Your task to perform on an android device: Open ESPN.com Image 0: 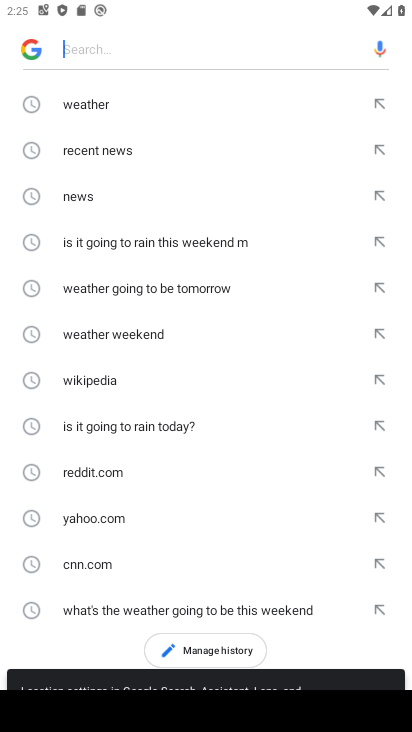
Step 0: press home button
Your task to perform on an android device: Open ESPN.com Image 1: 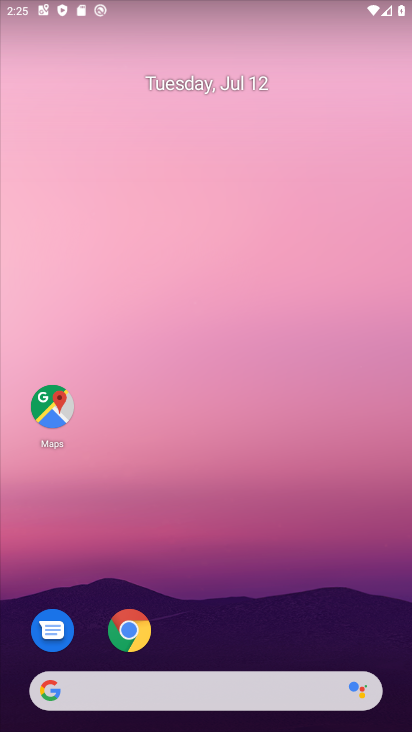
Step 1: click (128, 629)
Your task to perform on an android device: Open ESPN.com Image 2: 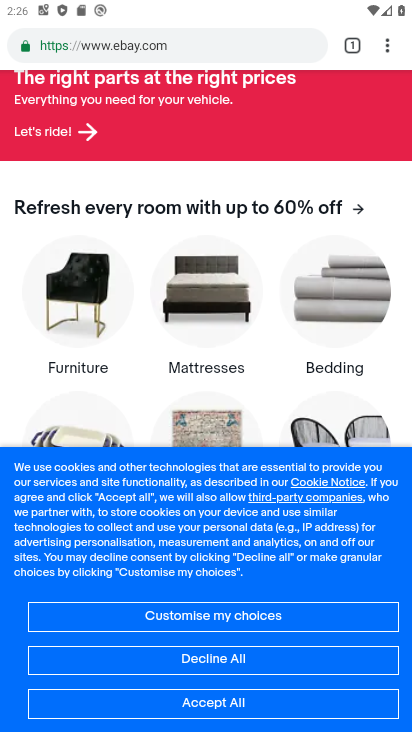
Step 2: click (206, 40)
Your task to perform on an android device: Open ESPN.com Image 3: 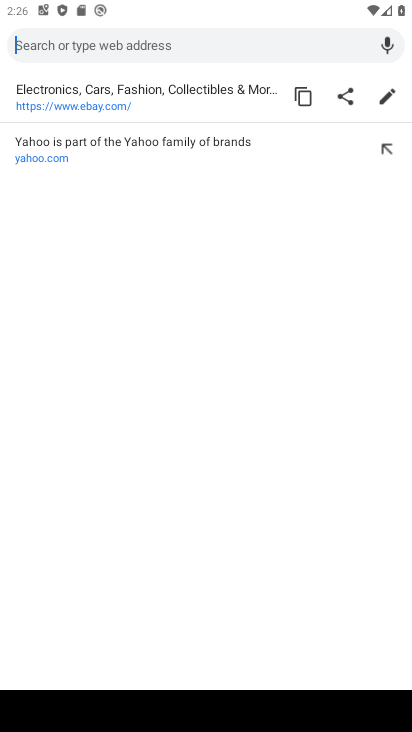
Step 3: type "ESpn.com"
Your task to perform on an android device: Open ESPN.com Image 4: 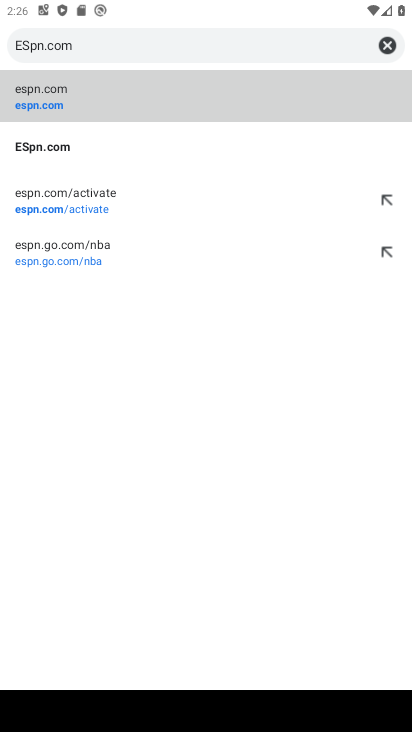
Step 4: click (39, 101)
Your task to perform on an android device: Open ESPN.com Image 5: 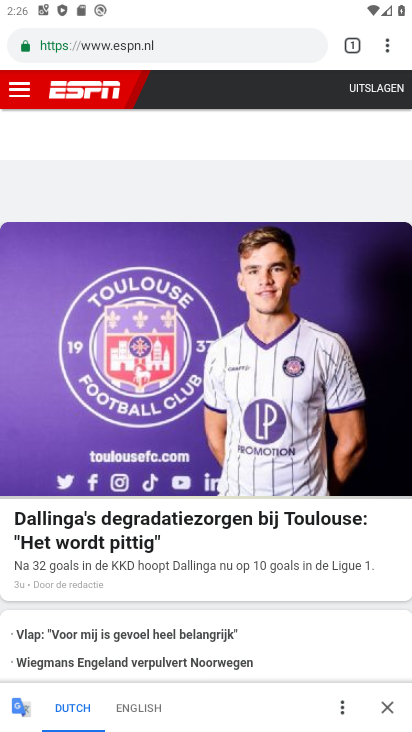
Step 5: drag from (265, 621) to (265, 370)
Your task to perform on an android device: Open ESPN.com Image 6: 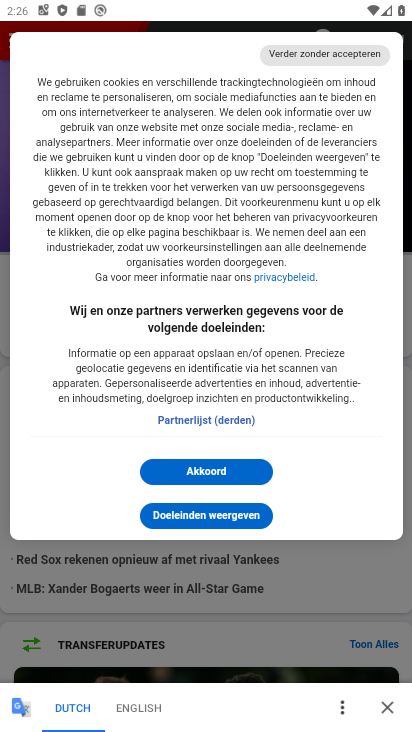
Step 6: click (209, 471)
Your task to perform on an android device: Open ESPN.com Image 7: 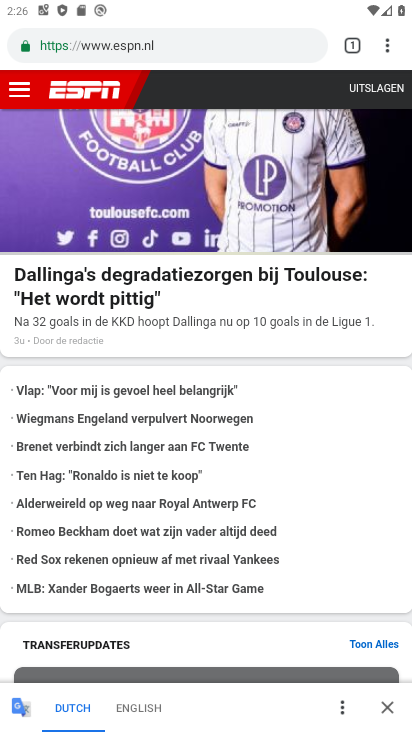
Step 7: task complete